Your task to perform on an android device: turn on location history Image 0: 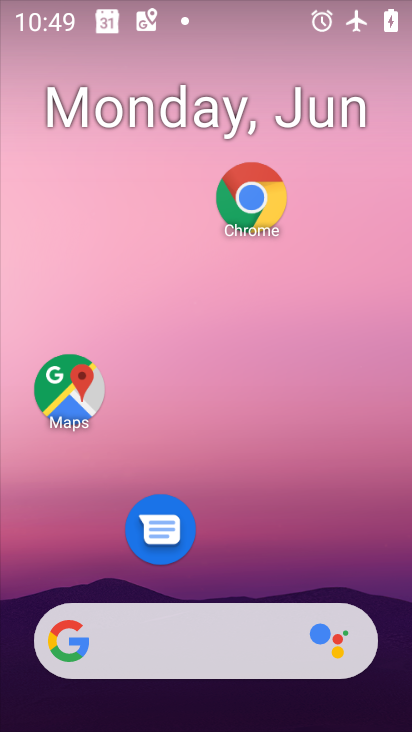
Step 0: drag from (202, 583) to (202, 213)
Your task to perform on an android device: turn on location history Image 1: 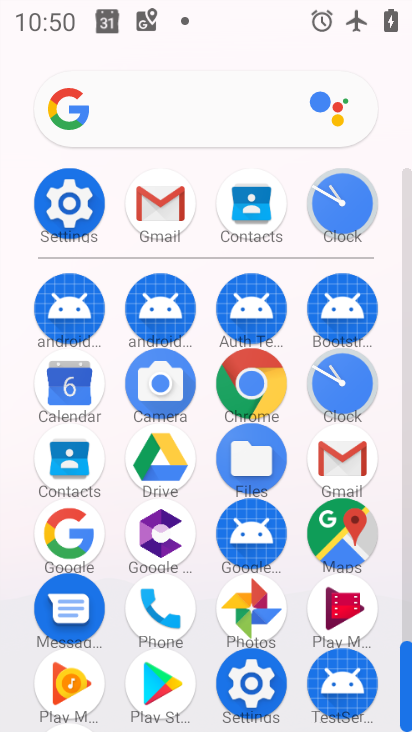
Step 1: click (51, 208)
Your task to perform on an android device: turn on location history Image 2: 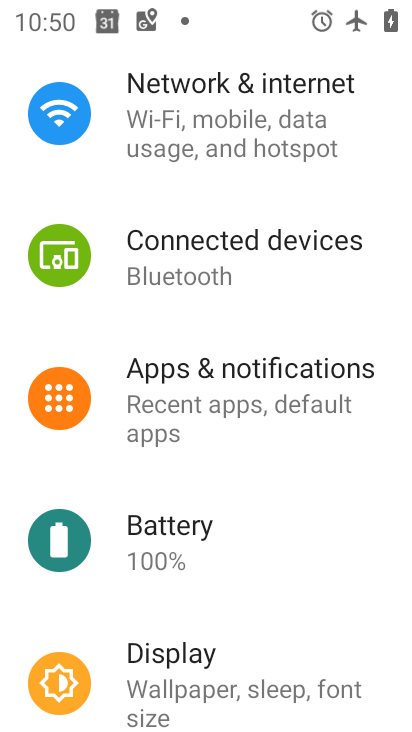
Step 2: drag from (207, 639) to (232, 298)
Your task to perform on an android device: turn on location history Image 3: 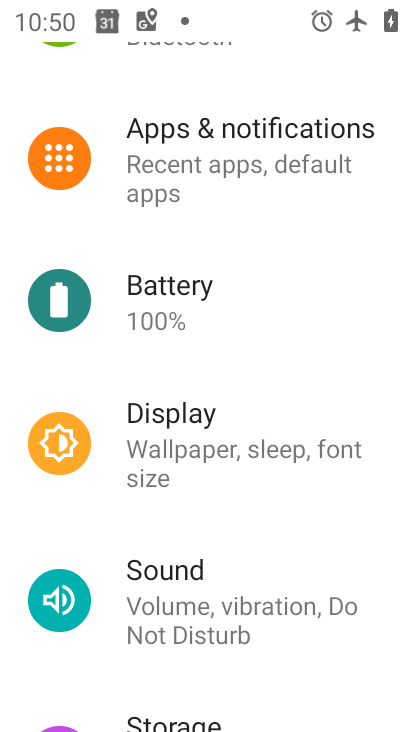
Step 3: drag from (218, 573) to (230, 302)
Your task to perform on an android device: turn on location history Image 4: 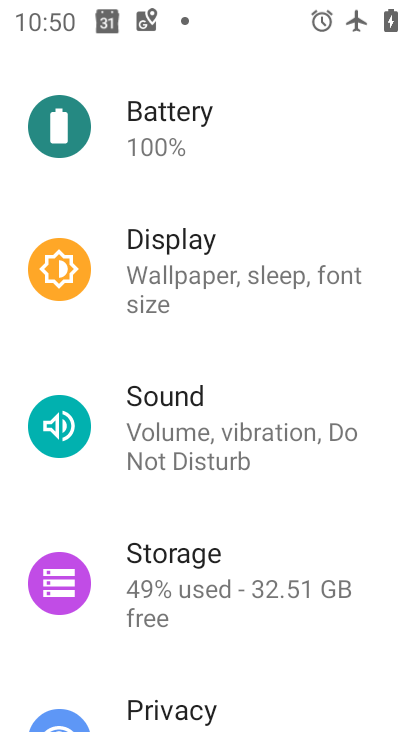
Step 4: drag from (239, 631) to (259, 271)
Your task to perform on an android device: turn on location history Image 5: 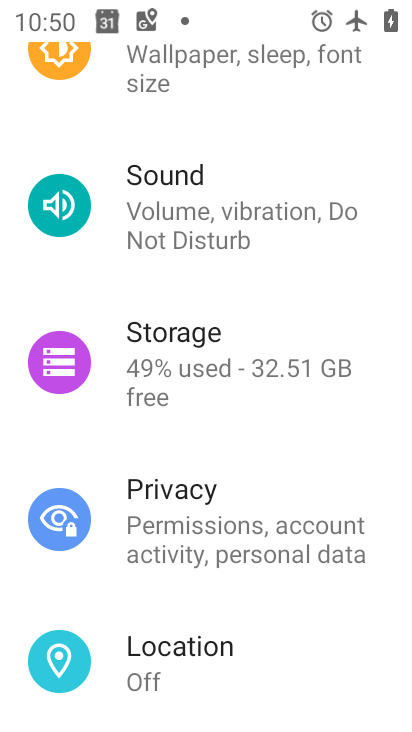
Step 5: click (193, 670)
Your task to perform on an android device: turn on location history Image 6: 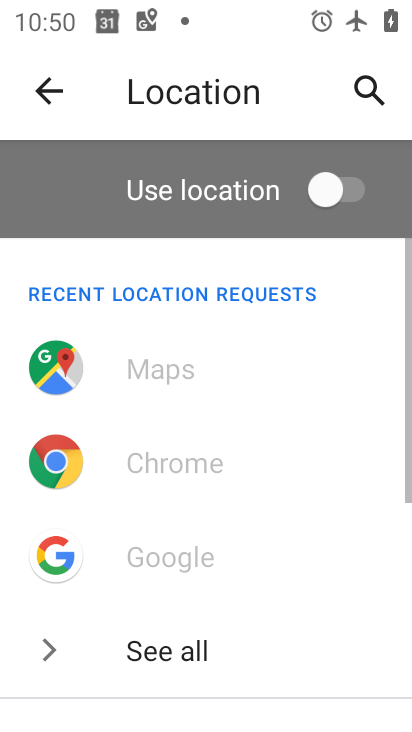
Step 6: drag from (212, 643) to (239, 334)
Your task to perform on an android device: turn on location history Image 7: 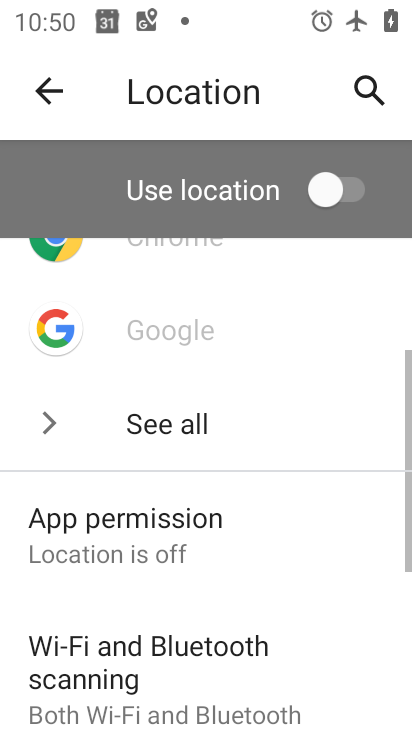
Step 7: drag from (239, 600) to (257, 322)
Your task to perform on an android device: turn on location history Image 8: 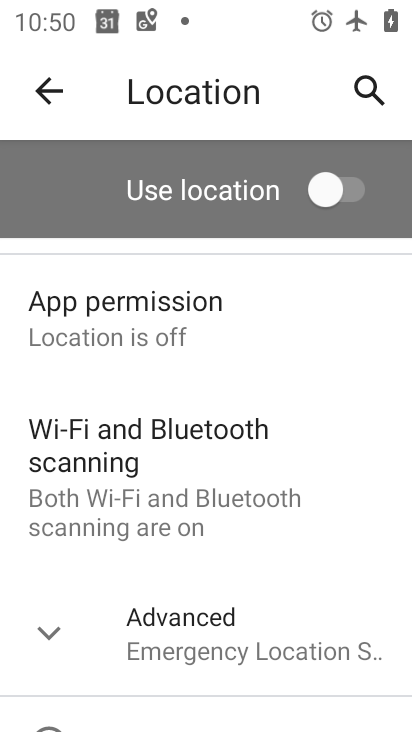
Step 8: drag from (284, 585) to (263, 376)
Your task to perform on an android device: turn on location history Image 9: 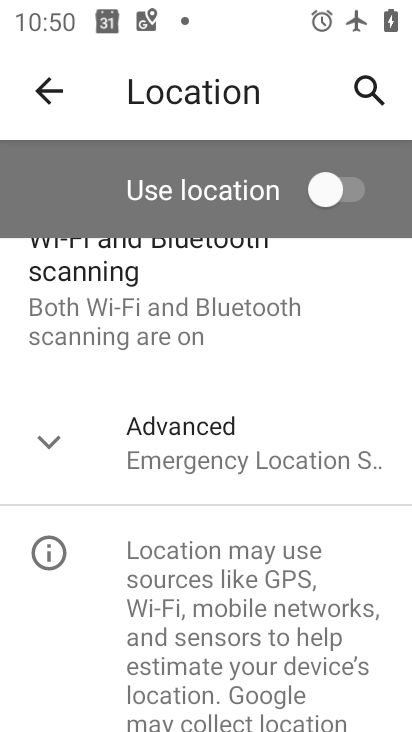
Step 9: click (248, 423)
Your task to perform on an android device: turn on location history Image 10: 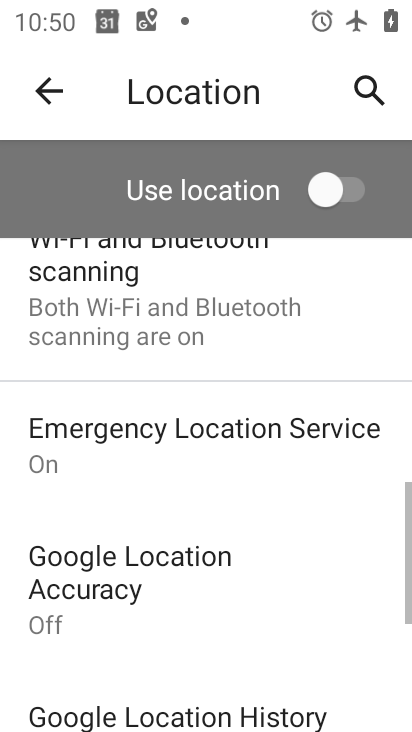
Step 10: drag from (281, 562) to (257, 349)
Your task to perform on an android device: turn on location history Image 11: 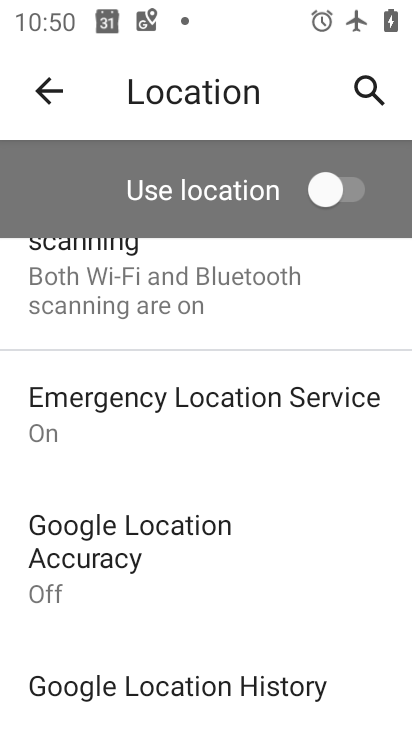
Step 11: drag from (269, 613) to (266, 425)
Your task to perform on an android device: turn on location history Image 12: 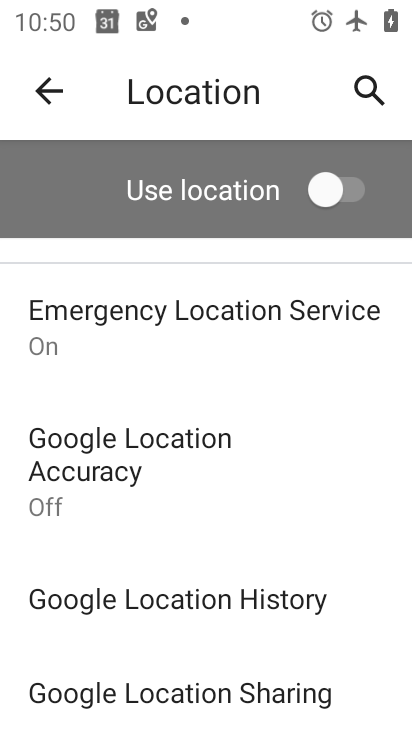
Step 12: click (192, 605)
Your task to perform on an android device: turn on location history Image 13: 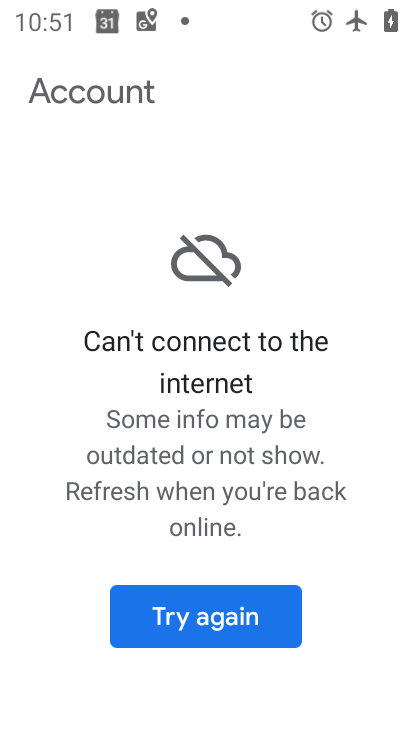
Step 13: press home button
Your task to perform on an android device: turn on location history Image 14: 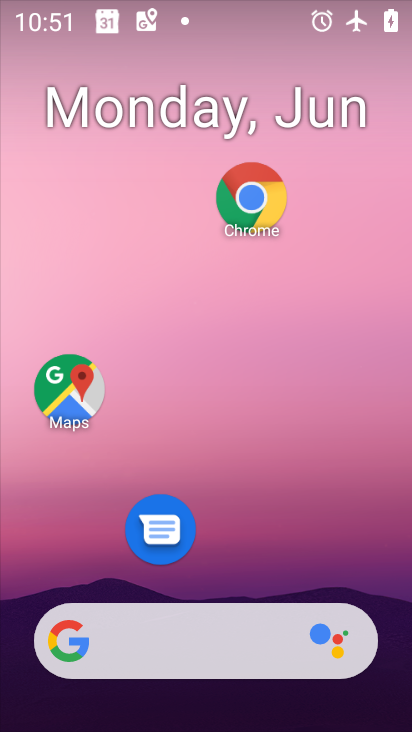
Step 14: drag from (238, 508) to (238, 77)
Your task to perform on an android device: turn on location history Image 15: 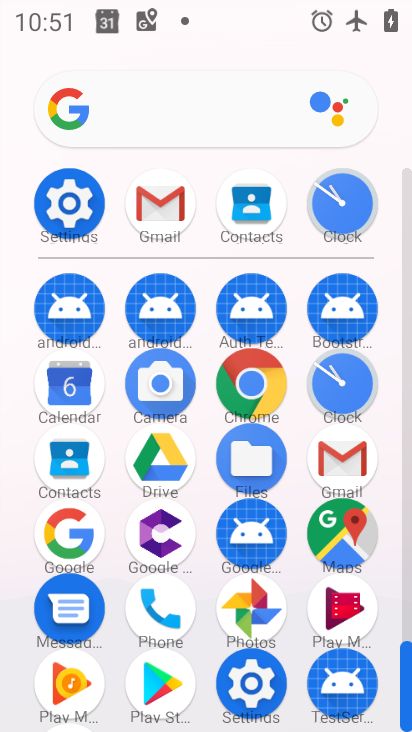
Step 15: click (69, 219)
Your task to perform on an android device: turn on location history Image 16: 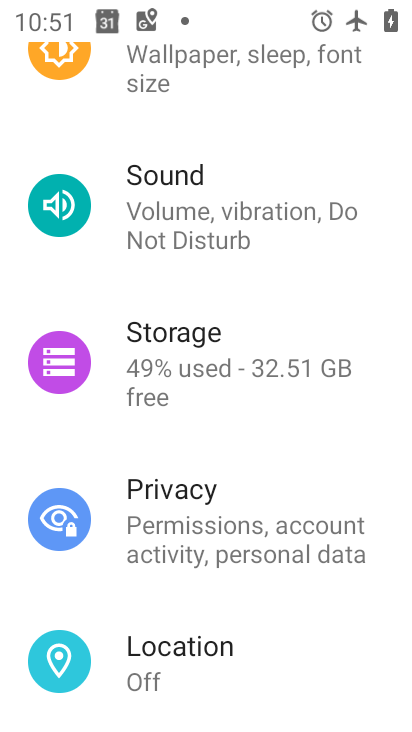
Step 16: click (226, 638)
Your task to perform on an android device: turn on location history Image 17: 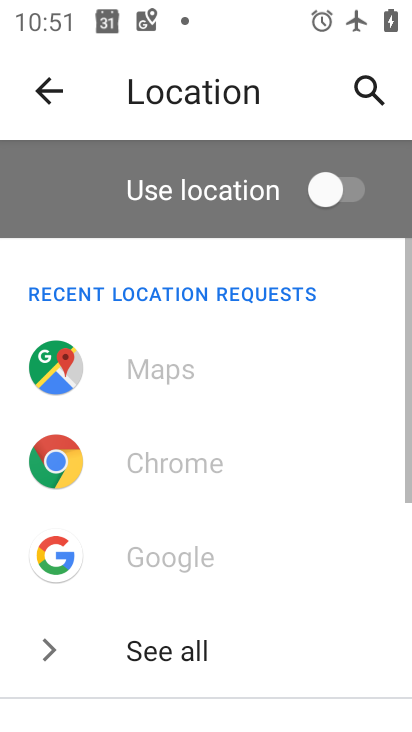
Step 17: click (341, 177)
Your task to perform on an android device: turn on location history Image 18: 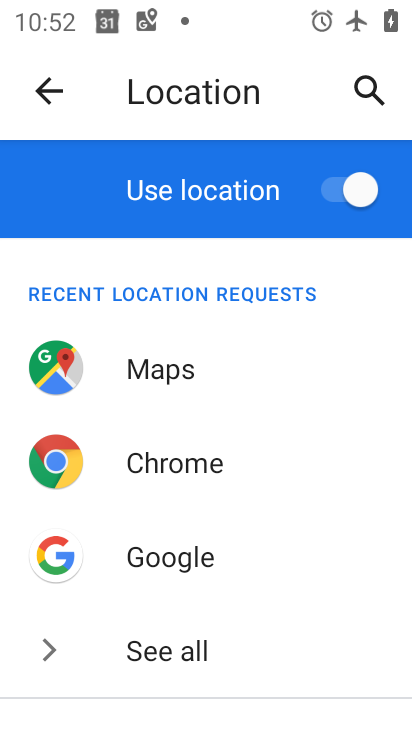
Step 18: drag from (212, 639) to (222, 382)
Your task to perform on an android device: turn on location history Image 19: 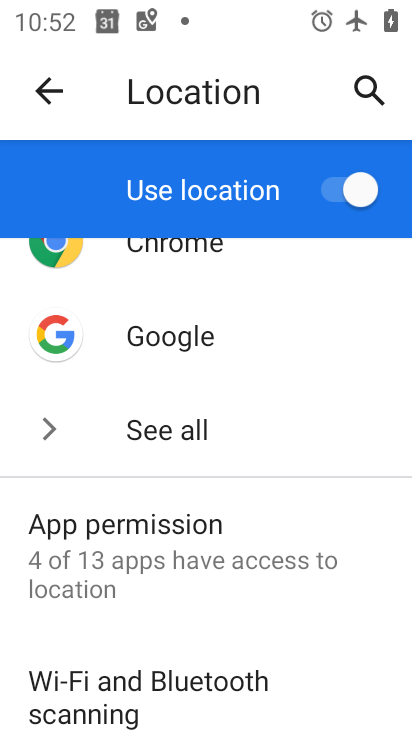
Step 19: drag from (256, 583) to (246, 267)
Your task to perform on an android device: turn on location history Image 20: 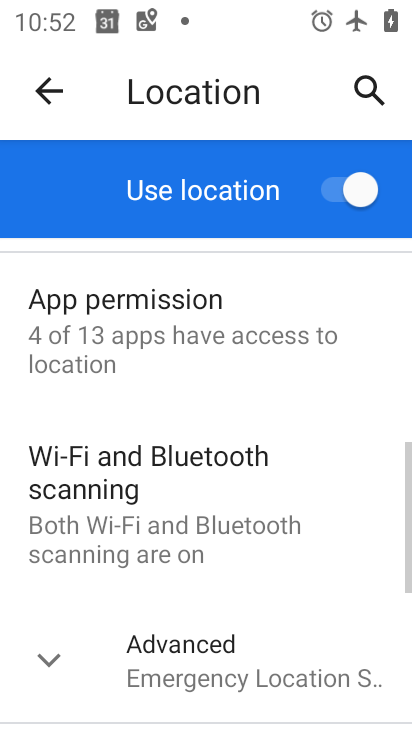
Step 20: drag from (249, 557) to (255, 268)
Your task to perform on an android device: turn on location history Image 21: 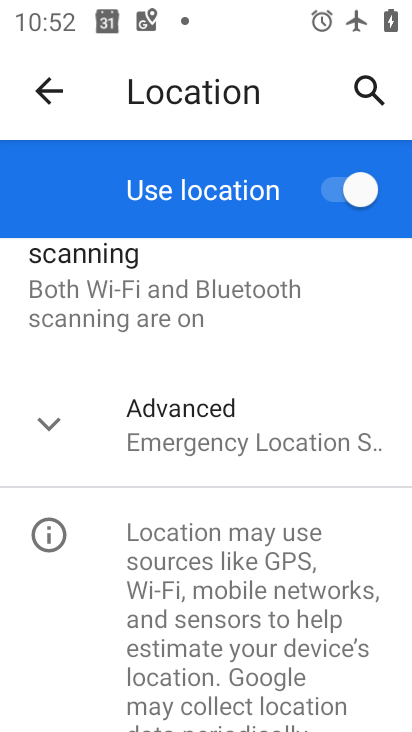
Step 21: drag from (243, 590) to (245, 333)
Your task to perform on an android device: turn on location history Image 22: 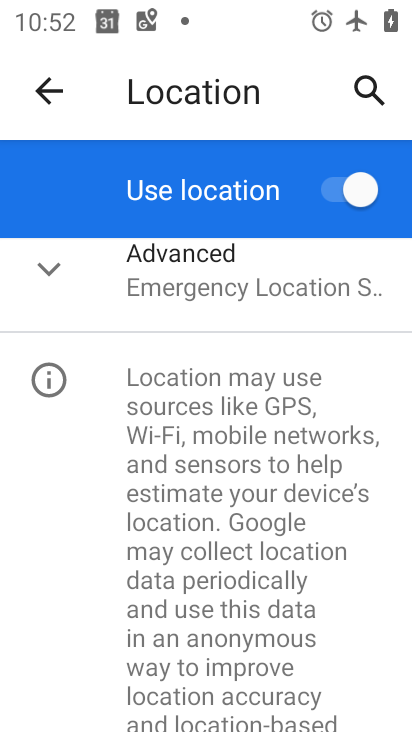
Step 22: click (223, 302)
Your task to perform on an android device: turn on location history Image 23: 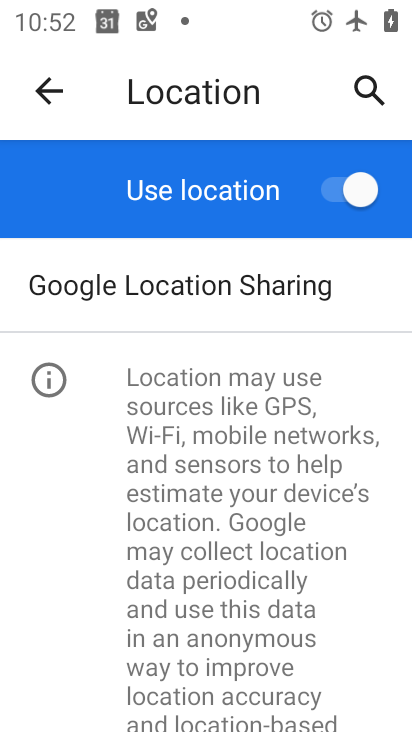
Step 23: drag from (234, 608) to (214, 282)
Your task to perform on an android device: turn on location history Image 24: 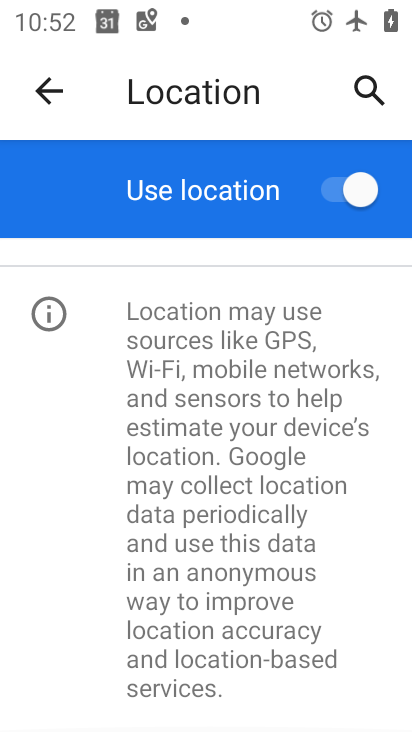
Step 24: drag from (240, 409) to (253, 637)
Your task to perform on an android device: turn on location history Image 25: 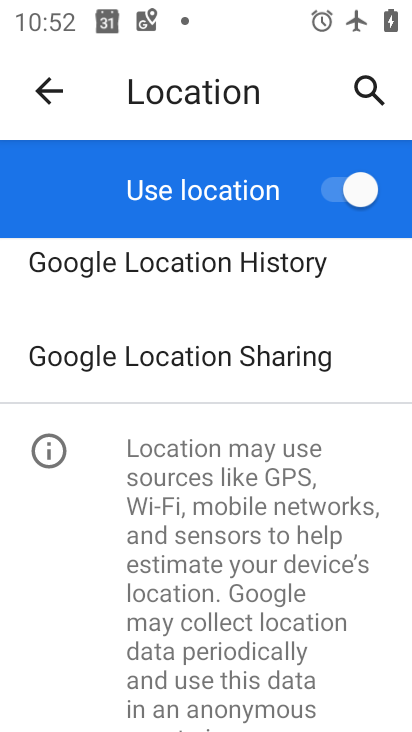
Step 25: click (250, 271)
Your task to perform on an android device: turn on location history Image 26: 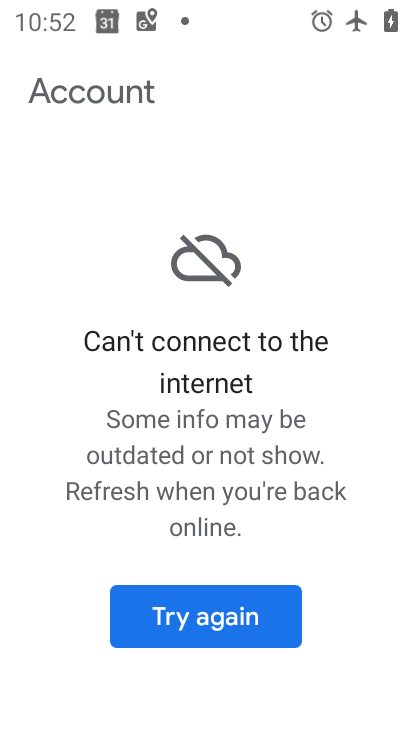
Step 26: task complete